Your task to perform on an android device: Open my contact list Image 0: 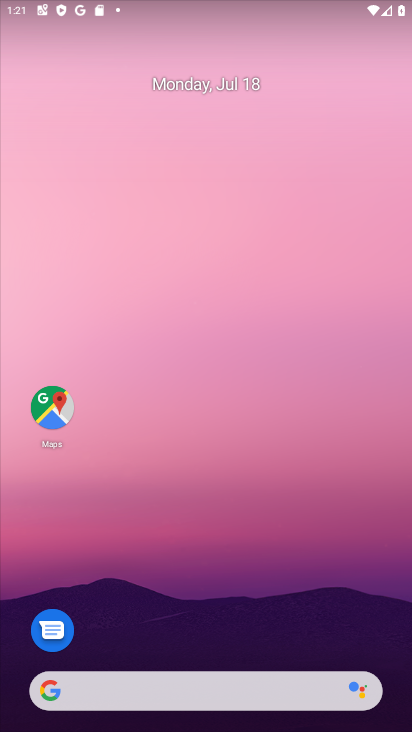
Step 0: drag from (186, 683) to (199, 41)
Your task to perform on an android device: Open my contact list Image 1: 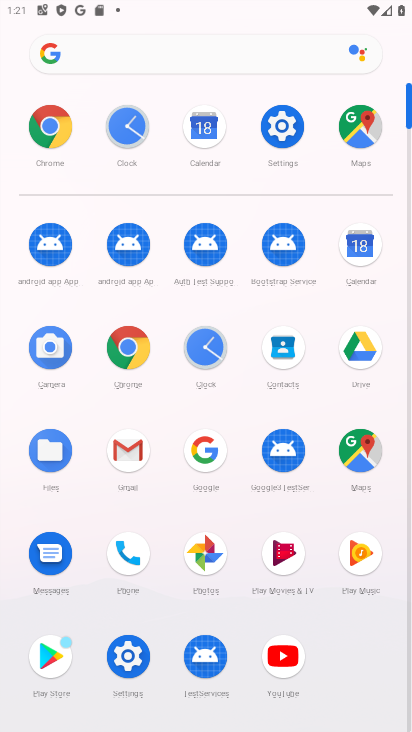
Step 1: click (302, 346)
Your task to perform on an android device: Open my contact list Image 2: 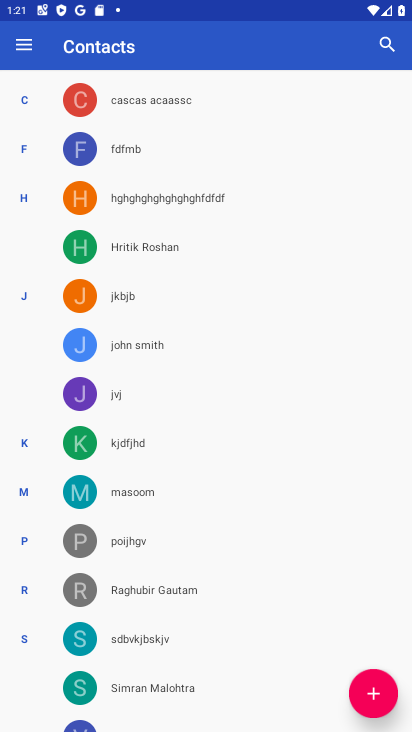
Step 2: click (383, 689)
Your task to perform on an android device: Open my contact list Image 3: 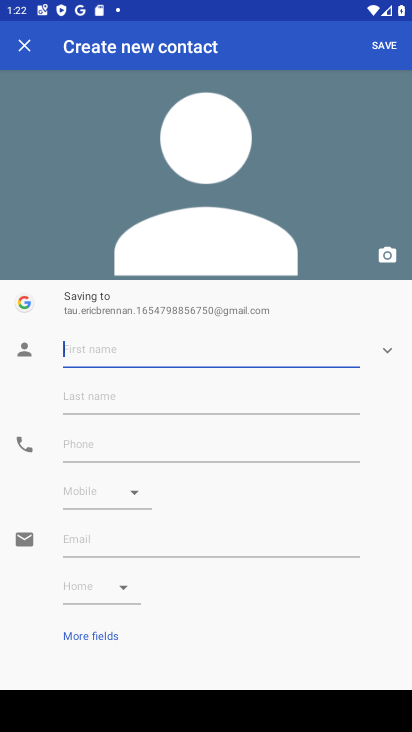
Step 3: type "lucy"
Your task to perform on an android device: Open my contact list Image 4: 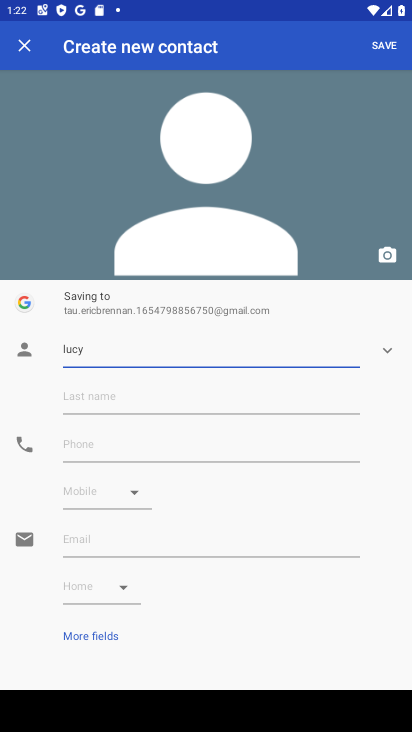
Step 4: click (118, 435)
Your task to perform on an android device: Open my contact list Image 5: 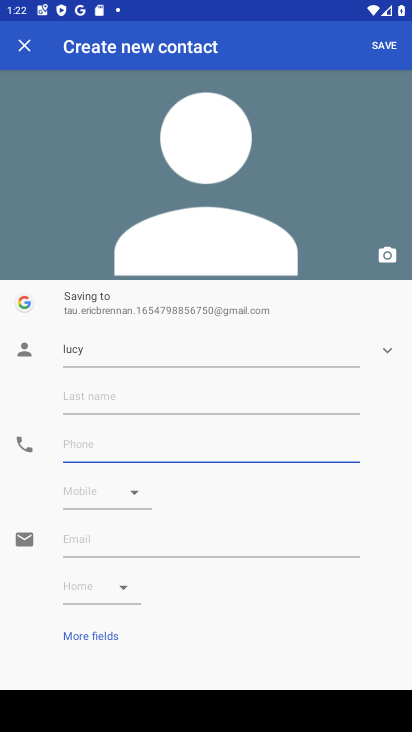
Step 5: type "9897908767"
Your task to perform on an android device: Open my contact list Image 6: 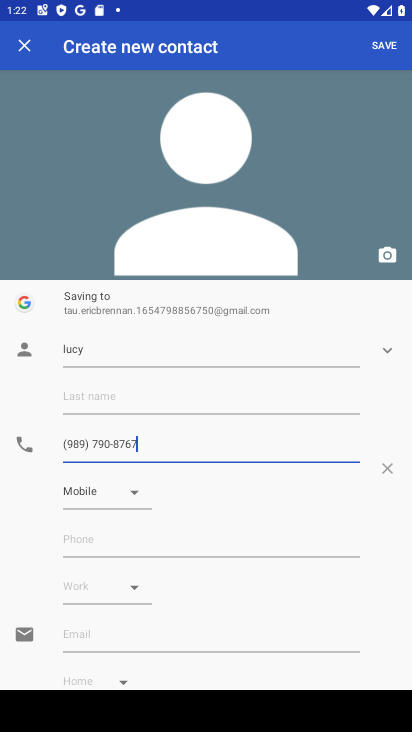
Step 6: click (389, 52)
Your task to perform on an android device: Open my contact list Image 7: 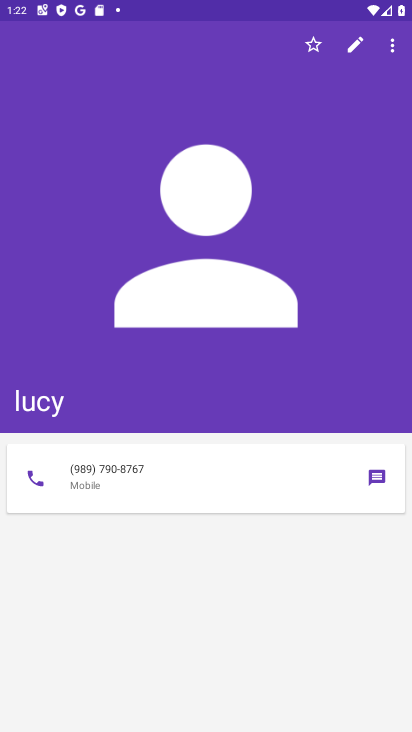
Step 7: task complete